Your task to perform on an android device: delete the emails in spam in the gmail app Image 0: 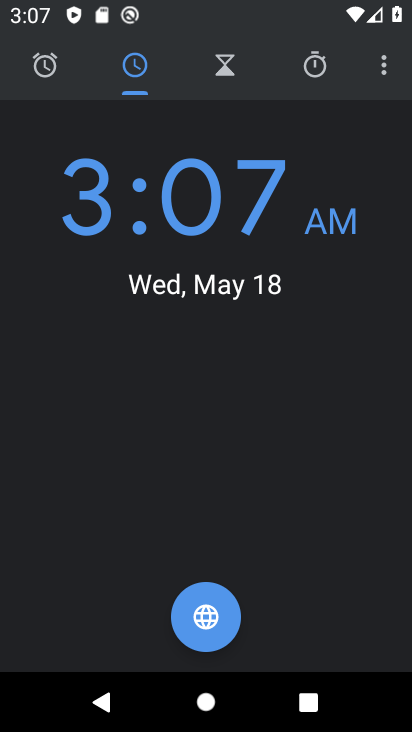
Step 0: press home button
Your task to perform on an android device: delete the emails in spam in the gmail app Image 1: 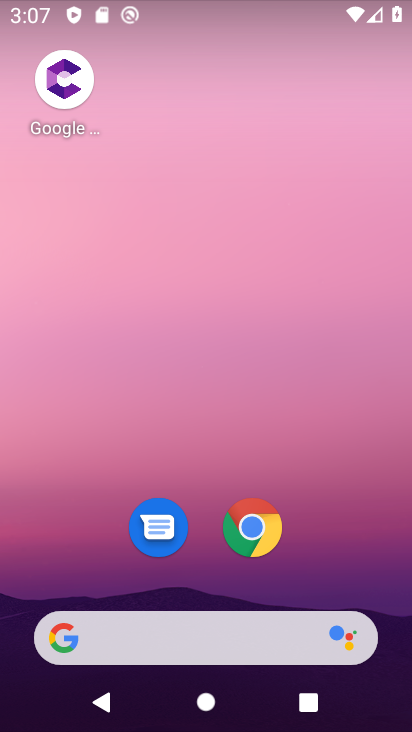
Step 1: drag from (336, 562) to (347, 264)
Your task to perform on an android device: delete the emails in spam in the gmail app Image 2: 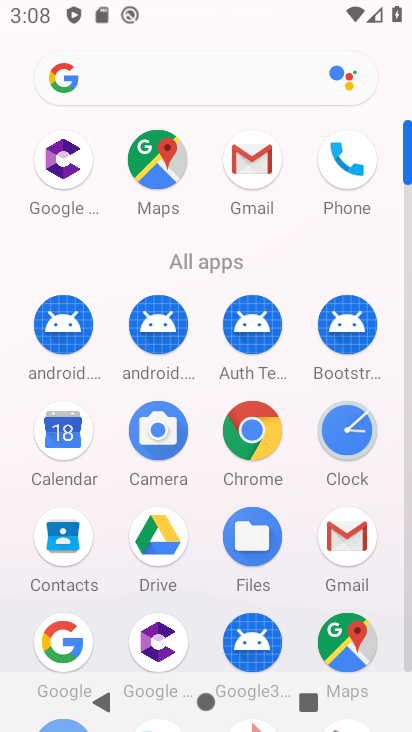
Step 2: click (338, 535)
Your task to perform on an android device: delete the emails in spam in the gmail app Image 3: 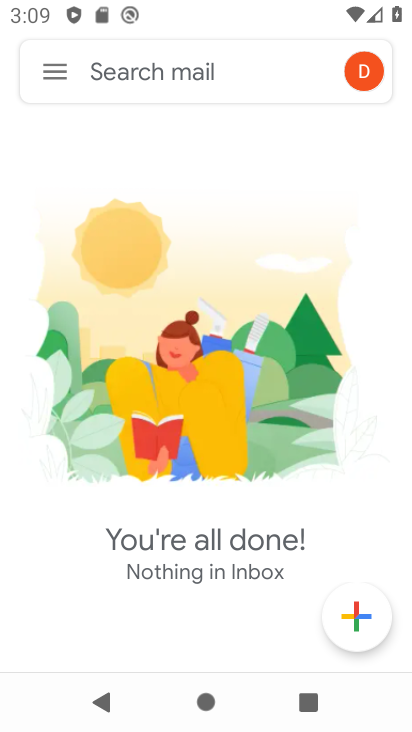
Step 3: click (43, 71)
Your task to perform on an android device: delete the emails in spam in the gmail app Image 4: 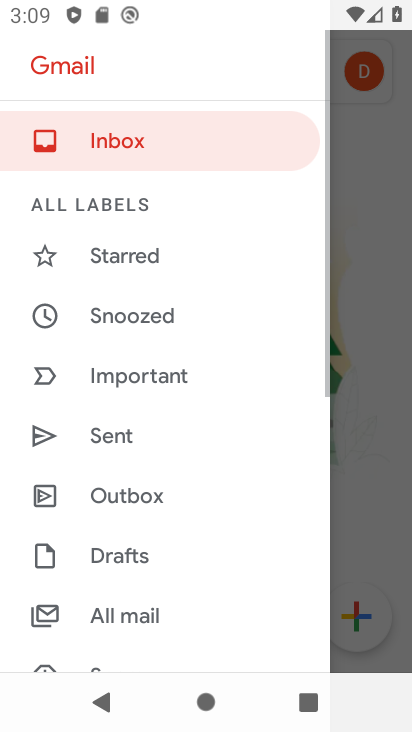
Step 4: drag from (179, 644) to (171, 209)
Your task to perform on an android device: delete the emails in spam in the gmail app Image 5: 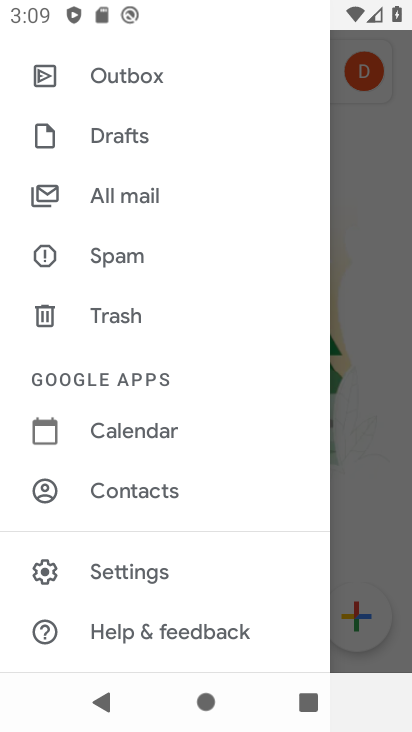
Step 5: click (146, 263)
Your task to perform on an android device: delete the emails in spam in the gmail app Image 6: 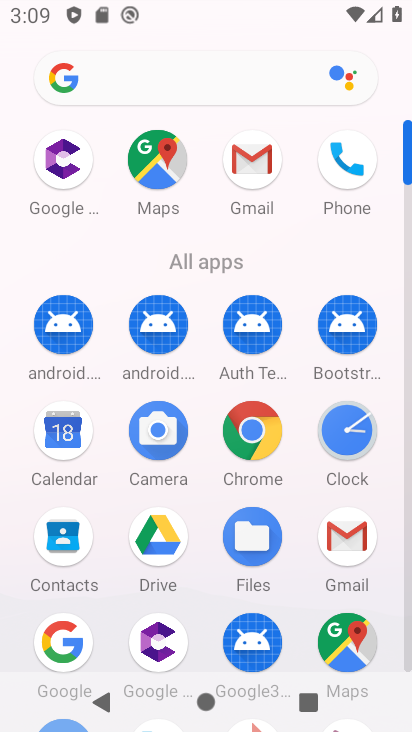
Step 6: click (355, 546)
Your task to perform on an android device: delete the emails in spam in the gmail app Image 7: 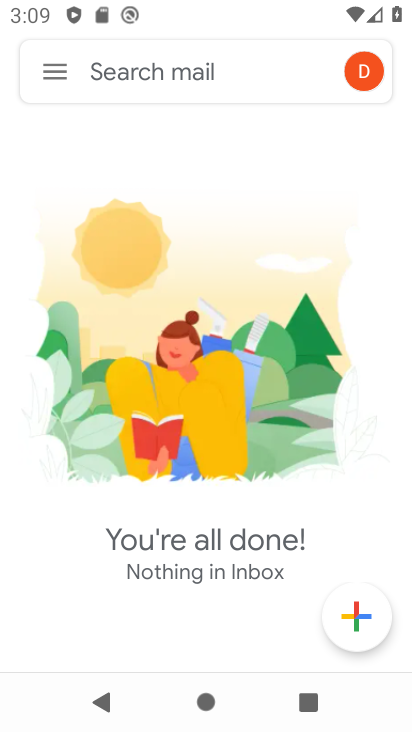
Step 7: click (60, 83)
Your task to perform on an android device: delete the emails in spam in the gmail app Image 8: 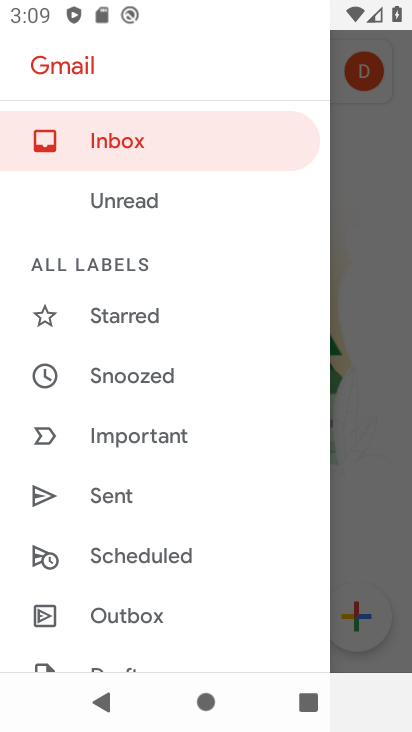
Step 8: drag from (181, 615) to (180, 251)
Your task to perform on an android device: delete the emails in spam in the gmail app Image 9: 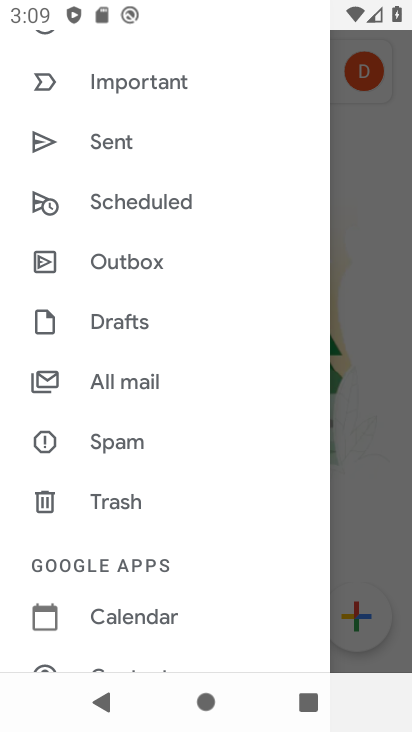
Step 9: drag from (180, 601) to (203, 227)
Your task to perform on an android device: delete the emails in spam in the gmail app Image 10: 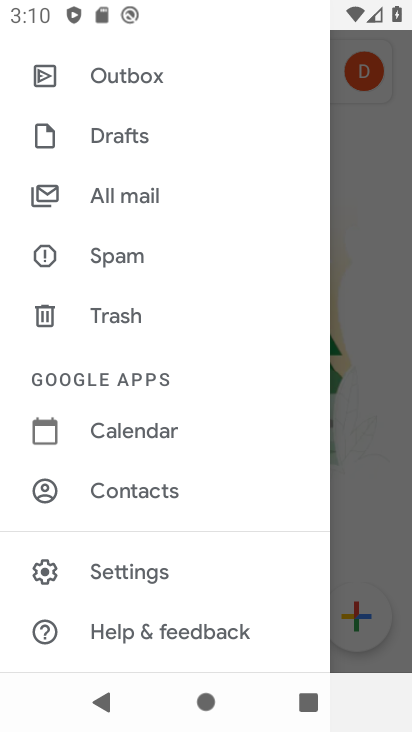
Step 10: click (126, 269)
Your task to perform on an android device: delete the emails in spam in the gmail app Image 11: 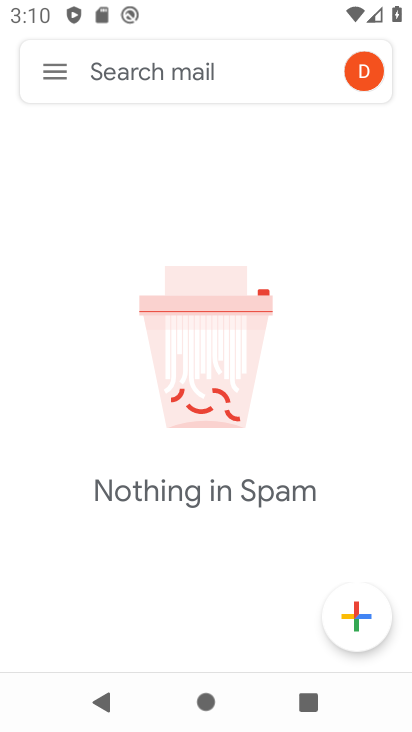
Step 11: task complete